Your task to perform on an android device: Open ESPN.com Image 0: 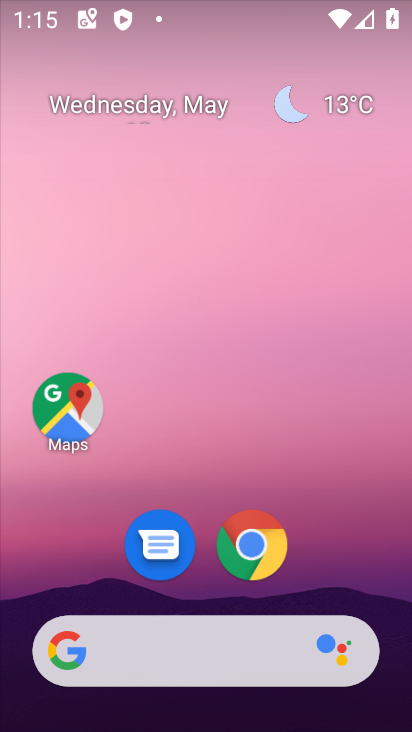
Step 0: click (274, 542)
Your task to perform on an android device: Open ESPN.com Image 1: 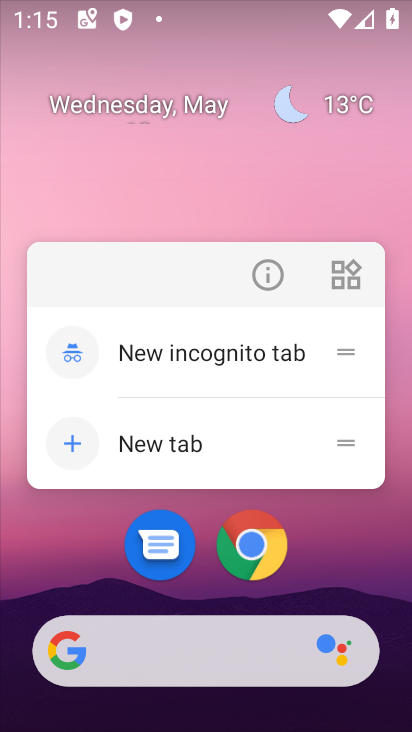
Step 1: click (271, 545)
Your task to perform on an android device: Open ESPN.com Image 2: 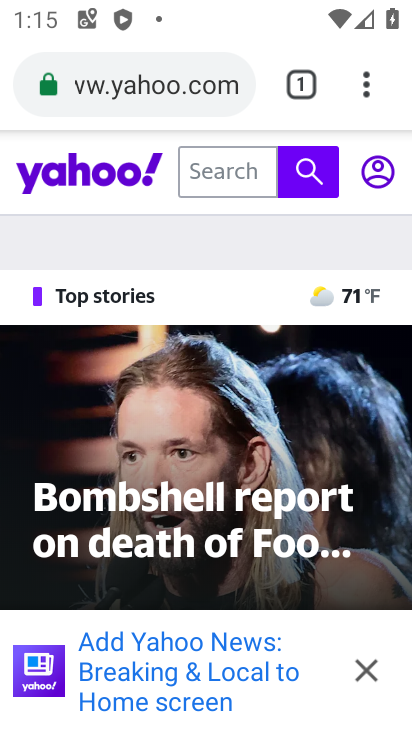
Step 2: click (320, 91)
Your task to perform on an android device: Open ESPN.com Image 3: 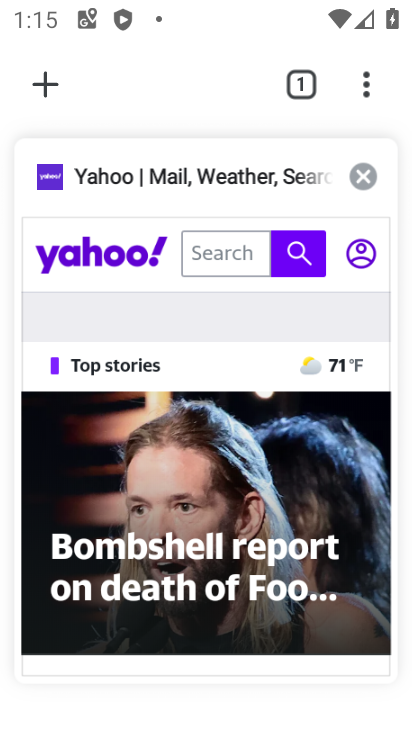
Step 3: click (311, 188)
Your task to perform on an android device: Open ESPN.com Image 4: 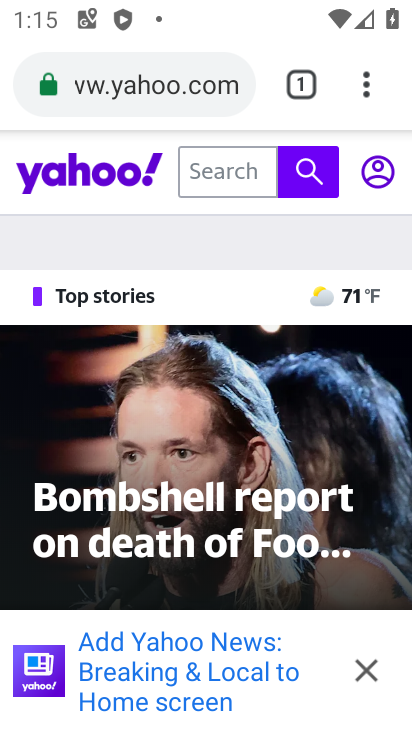
Step 4: click (208, 75)
Your task to perform on an android device: Open ESPN.com Image 5: 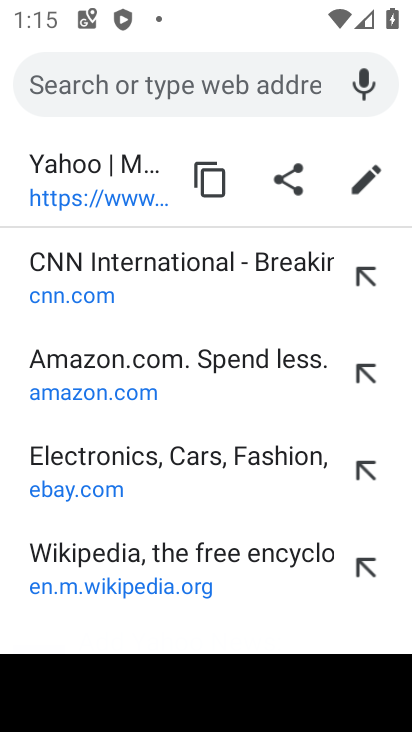
Step 5: type "espn.com"
Your task to perform on an android device: Open ESPN.com Image 6: 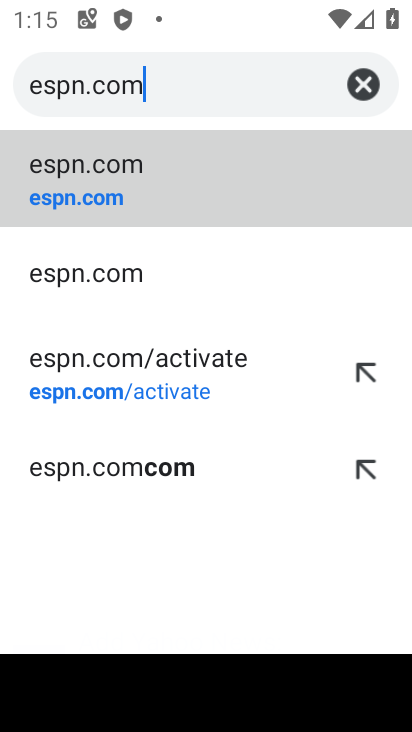
Step 6: click (159, 170)
Your task to perform on an android device: Open ESPN.com Image 7: 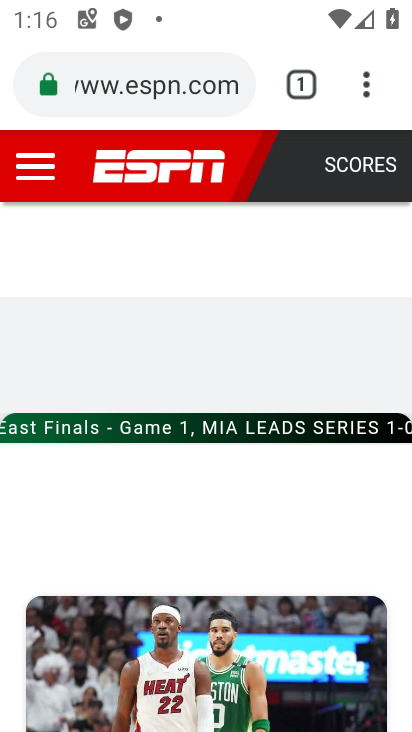
Step 7: task complete